Your task to perform on an android device: delete location history Image 0: 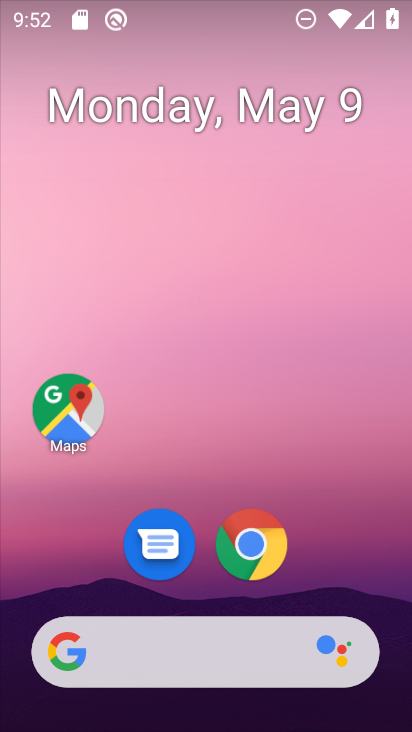
Step 0: drag from (331, 576) to (217, 28)
Your task to perform on an android device: delete location history Image 1: 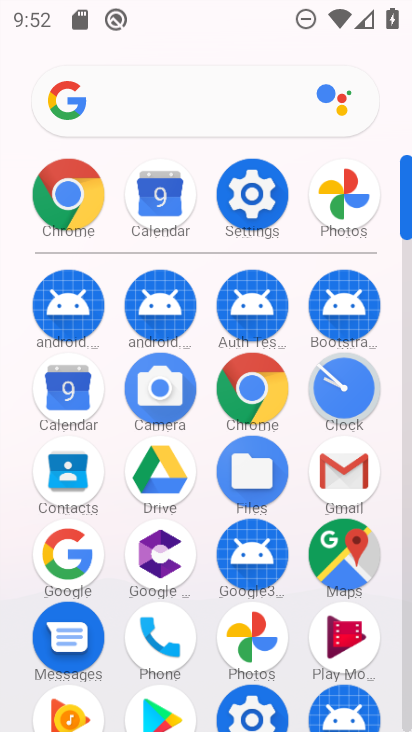
Step 1: click (339, 559)
Your task to perform on an android device: delete location history Image 2: 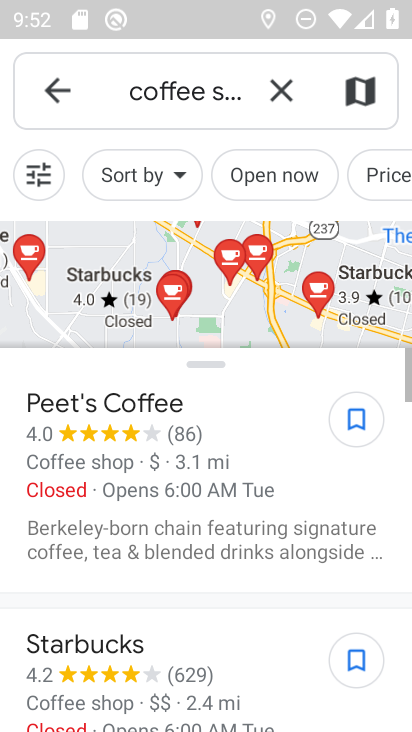
Step 2: click (281, 85)
Your task to perform on an android device: delete location history Image 3: 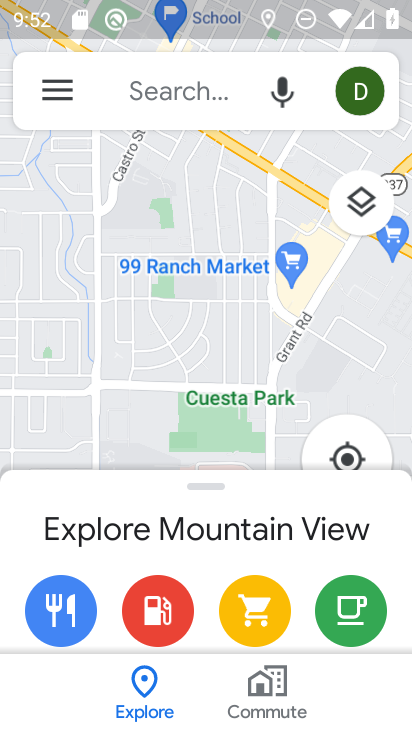
Step 3: click (51, 91)
Your task to perform on an android device: delete location history Image 4: 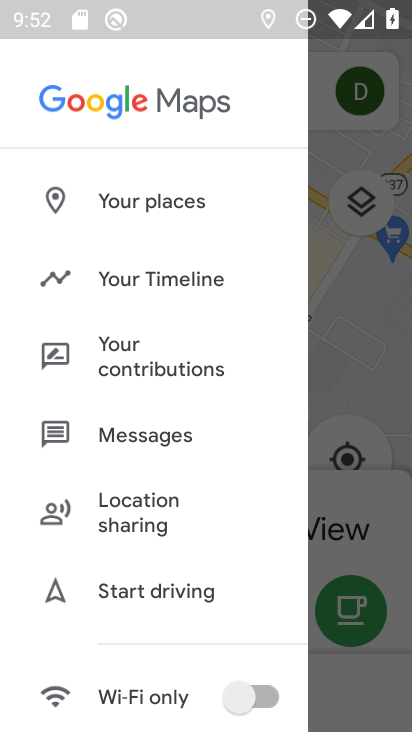
Step 4: click (130, 271)
Your task to perform on an android device: delete location history Image 5: 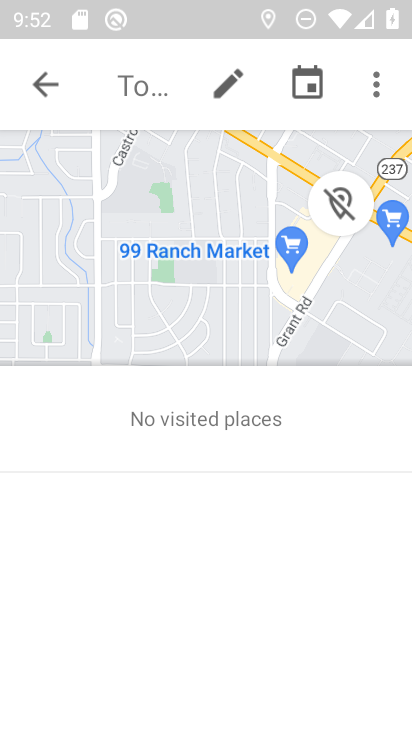
Step 5: click (374, 82)
Your task to perform on an android device: delete location history Image 6: 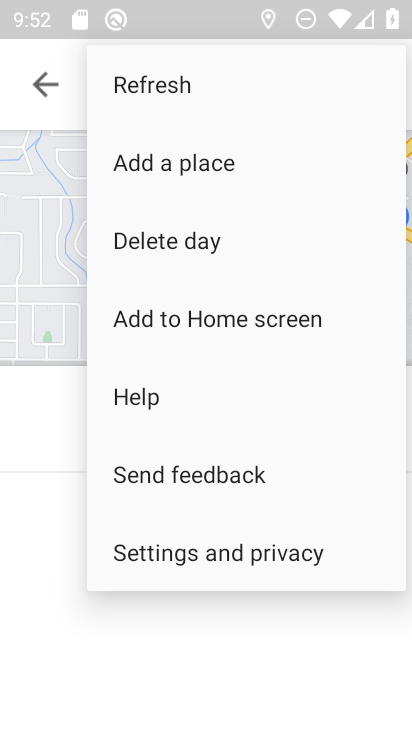
Step 6: click (237, 552)
Your task to perform on an android device: delete location history Image 7: 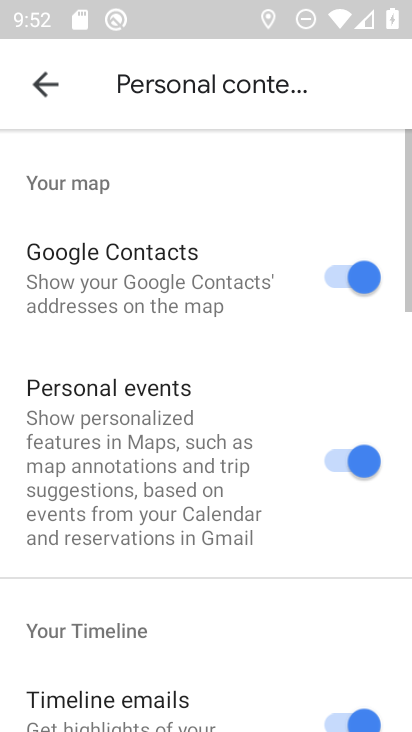
Step 7: drag from (237, 523) to (219, 42)
Your task to perform on an android device: delete location history Image 8: 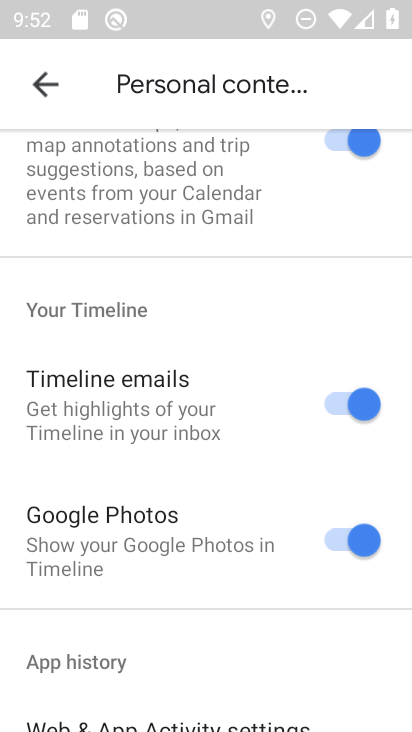
Step 8: drag from (219, 465) to (201, 23)
Your task to perform on an android device: delete location history Image 9: 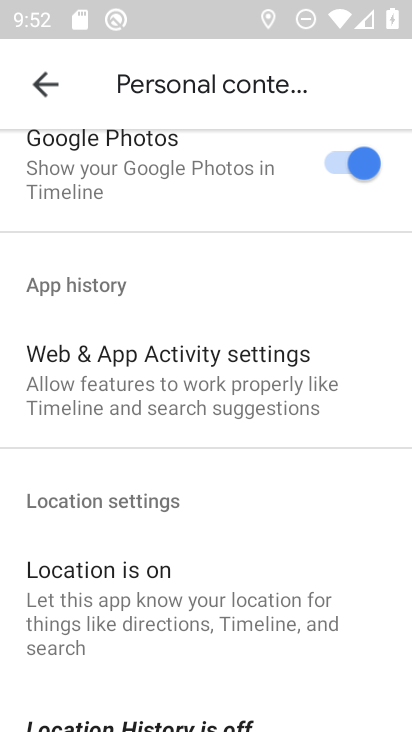
Step 9: drag from (196, 490) to (150, 96)
Your task to perform on an android device: delete location history Image 10: 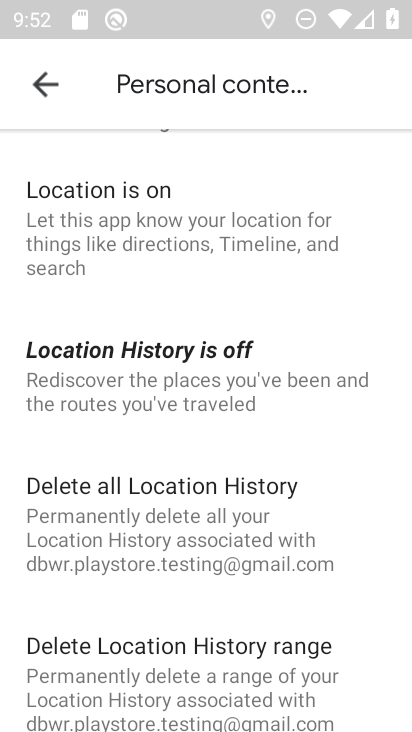
Step 10: click (176, 493)
Your task to perform on an android device: delete location history Image 11: 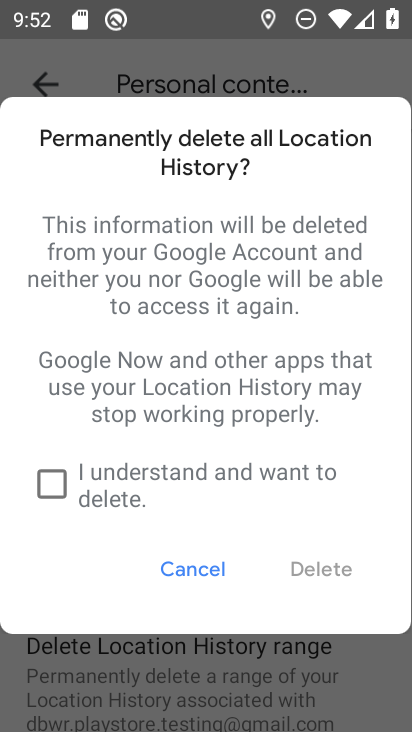
Step 11: click (40, 486)
Your task to perform on an android device: delete location history Image 12: 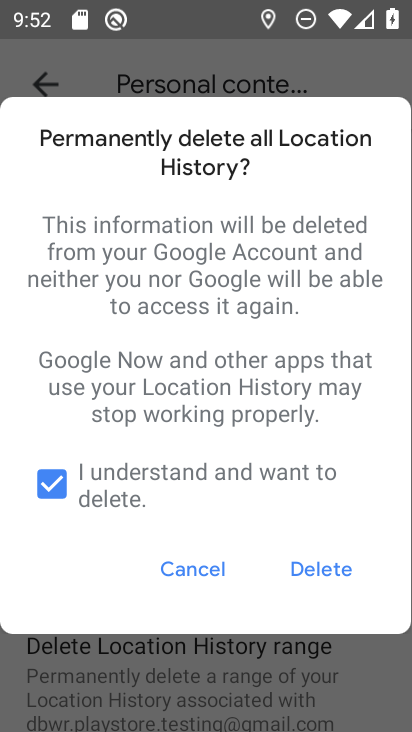
Step 12: click (335, 563)
Your task to perform on an android device: delete location history Image 13: 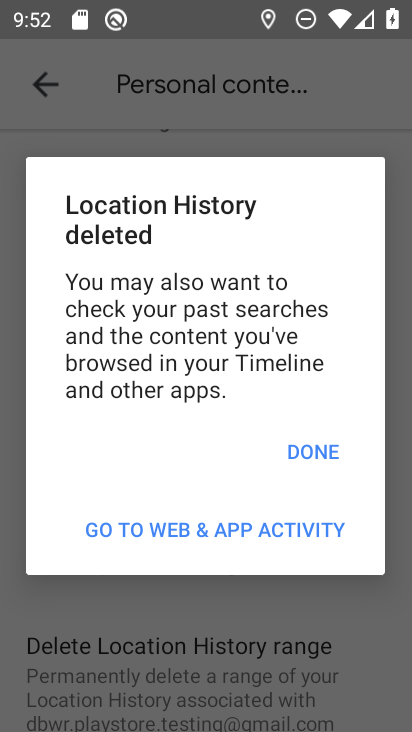
Step 13: click (316, 450)
Your task to perform on an android device: delete location history Image 14: 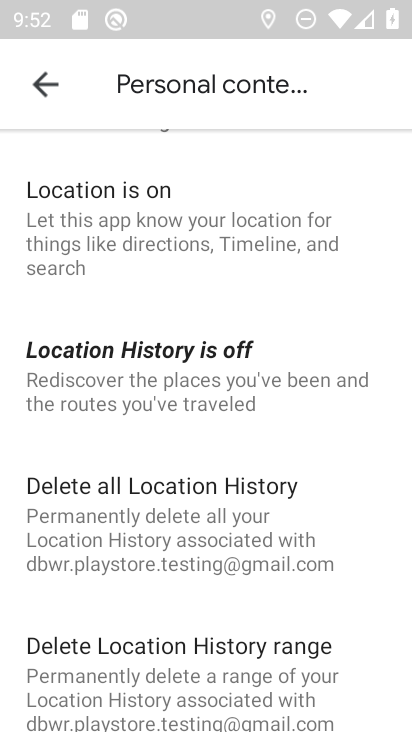
Step 14: task complete